Your task to perform on an android device: change the upload size in google photos Image 0: 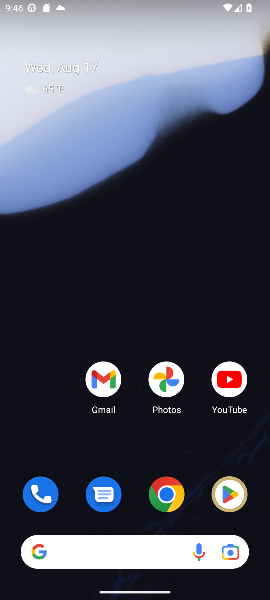
Step 0: drag from (16, 422) to (149, 11)
Your task to perform on an android device: change the upload size in google photos Image 1: 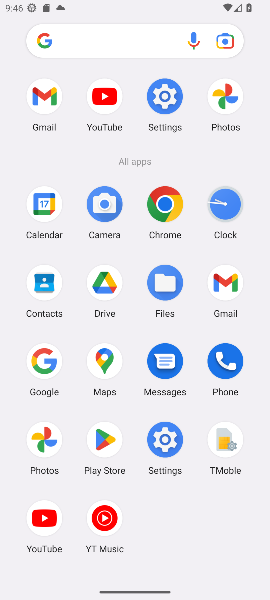
Step 1: click (51, 442)
Your task to perform on an android device: change the upload size in google photos Image 2: 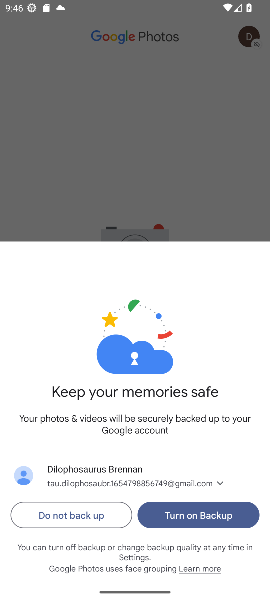
Step 2: click (230, 517)
Your task to perform on an android device: change the upload size in google photos Image 3: 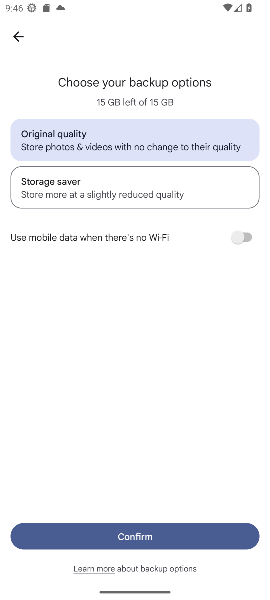
Step 3: click (135, 193)
Your task to perform on an android device: change the upload size in google photos Image 4: 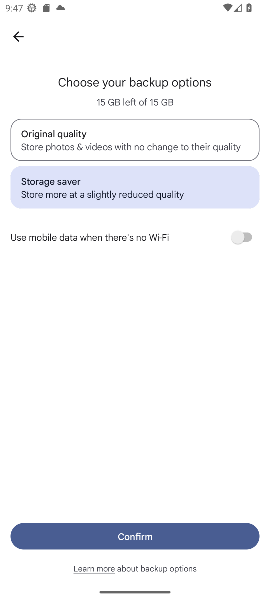
Step 4: click (204, 534)
Your task to perform on an android device: change the upload size in google photos Image 5: 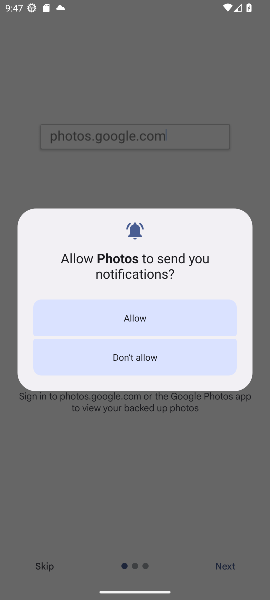
Step 5: task complete